Your task to perform on an android device: toggle improve location accuracy Image 0: 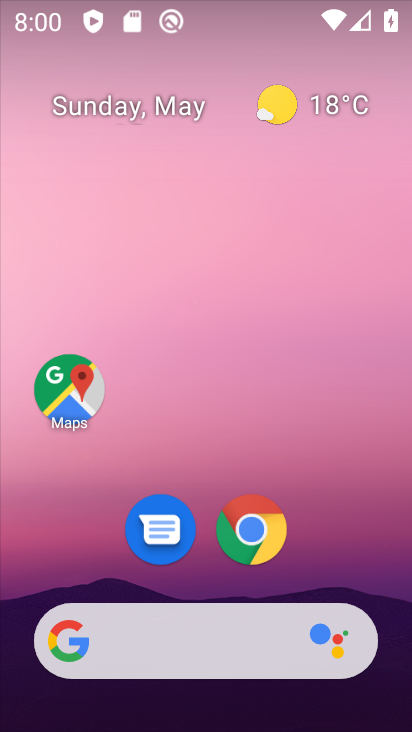
Step 0: drag from (337, 549) to (327, 14)
Your task to perform on an android device: toggle improve location accuracy Image 1: 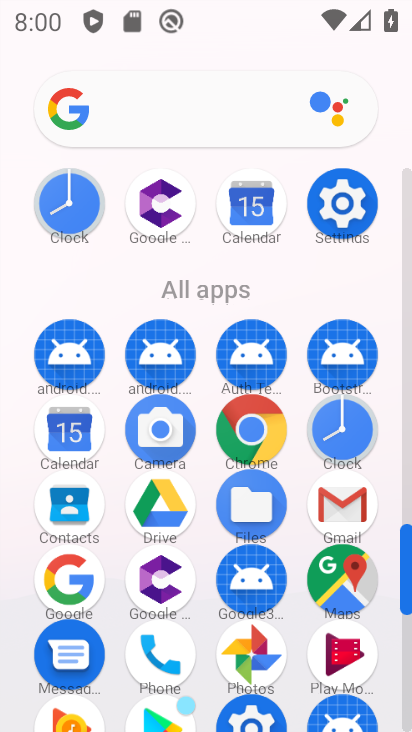
Step 1: click (347, 208)
Your task to perform on an android device: toggle improve location accuracy Image 2: 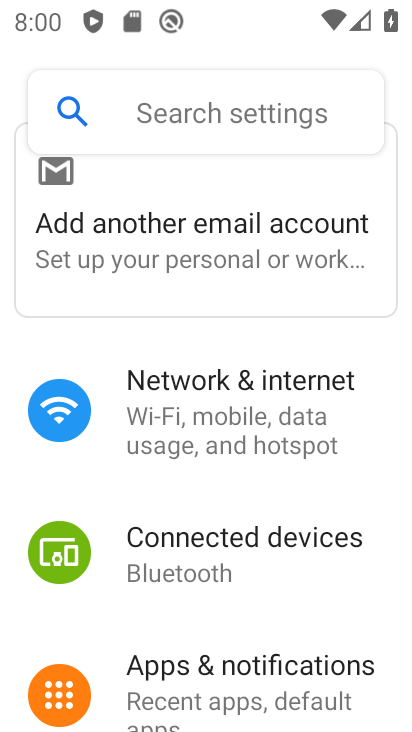
Step 2: drag from (346, 556) to (328, 53)
Your task to perform on an android device: toggle improve location accuracy Image 3: 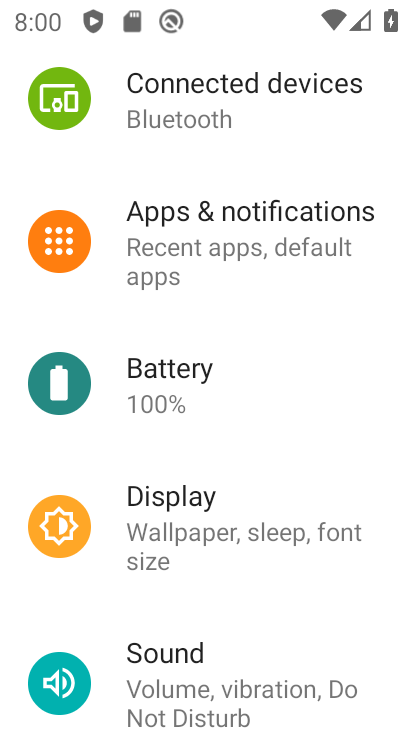
Step 3: drag from (259, 466) to (258, 169)
Your task to perform on an android device: toggle improve location accuracy Image 4: 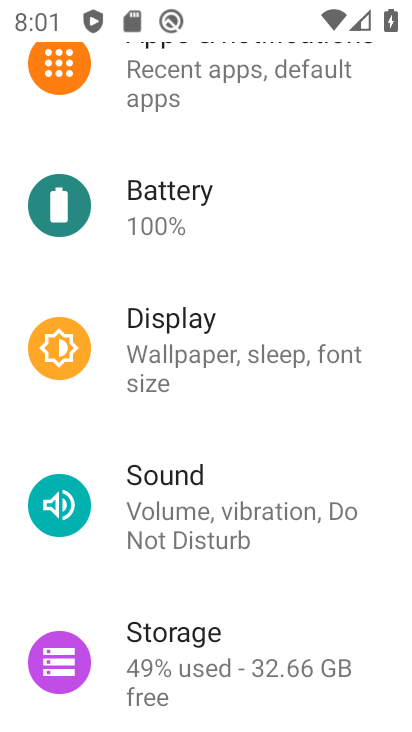
Step 4: drag from (271, 472) to (271, 168)
Your task to perform on an android device: toggle improve location accuracy Image 5: 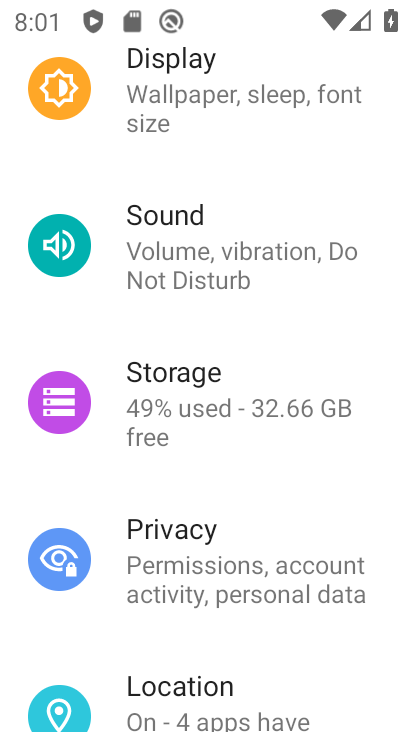
Step 5: drag from (266, 498) to (240, 218)
Your task to perform on an android device: toggle improve location accuracy Image 6: 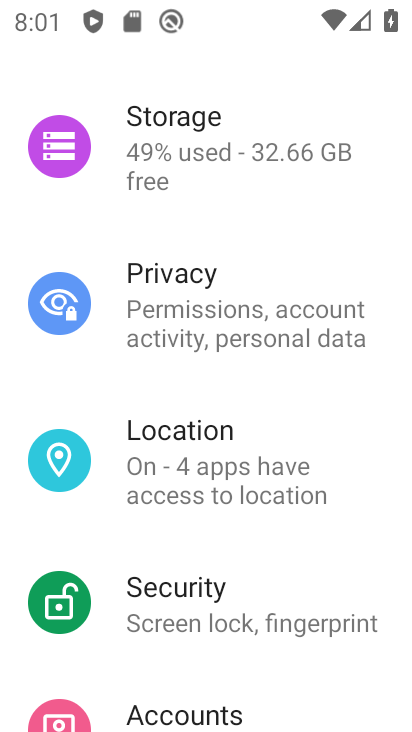
Step 6: click (152, 477)
Your task to perform on an android device: toggle improve location accuracy Image 7: 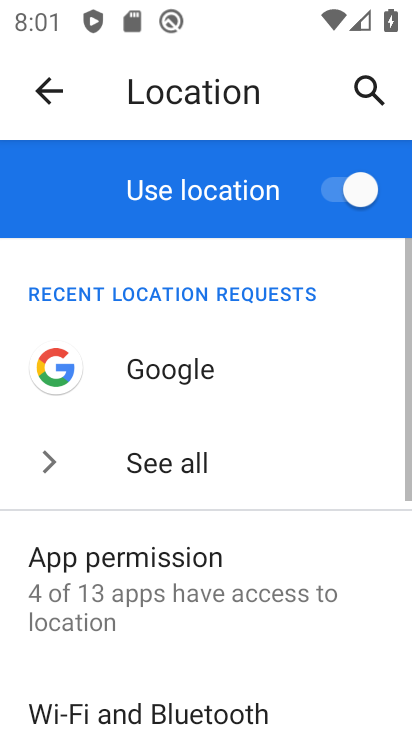
Step 7: drag from (276, 520) to (265, 118)
Your task to perform on an android device: toggle improve location accuracy Image 8: 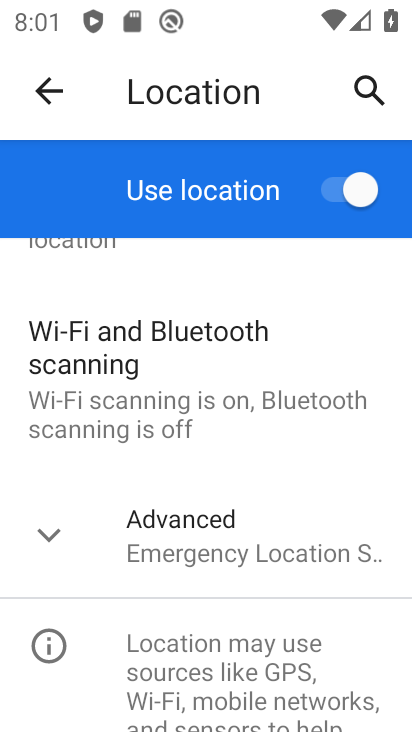
Step 8: click (39, 548)
Your task to perform on an android device: toggle improve location accuracy Image 9: 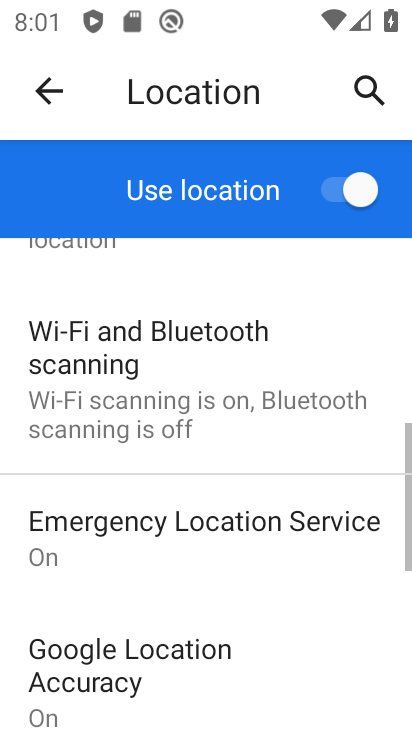
Step 9: drag from (219, 583) to (203, 232)
Your task to perform on an android device: toggle improve location accuracy Image 10: 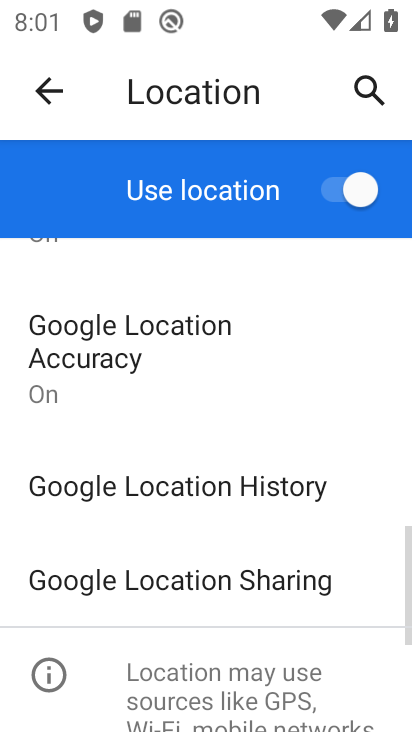
Step 10: click (104, 405)
Your task to perform on an android device: toggle improve location accuracy Image 11: 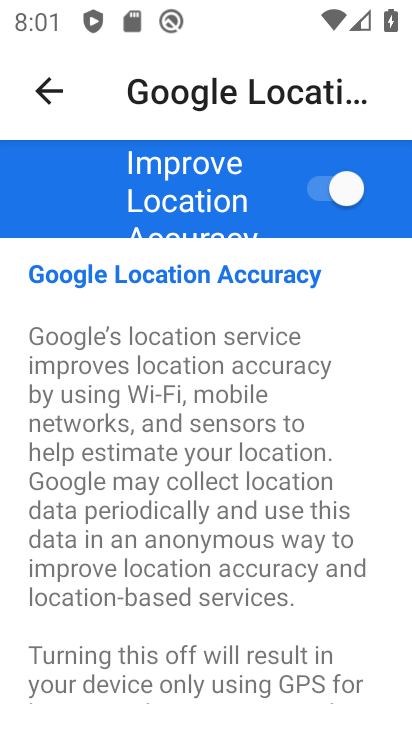
Step 11: click (344, 192)
Your task to perform on an android device: toggle improve location accuracy Image 12: 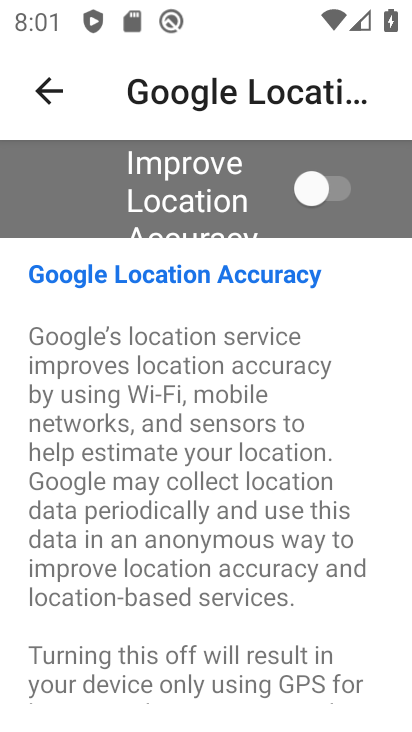
Step 12: task complete